Your task to perform on an android device: What's the weather going to be tomorrow? Image 0: 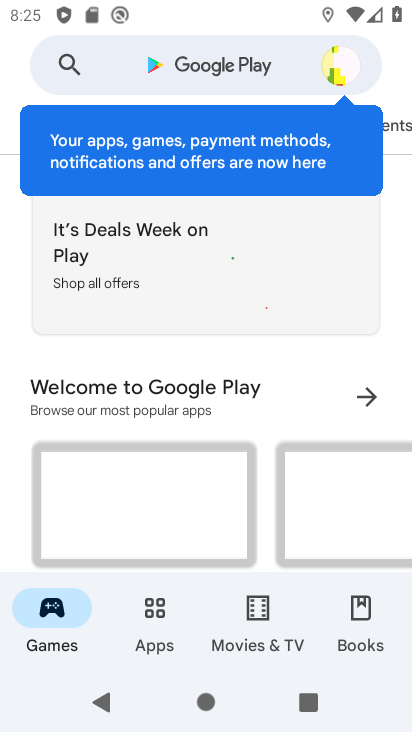
Step 0: press home button
Your task to perform on an android device: What's the weather going to be tomorrow? Image 1: 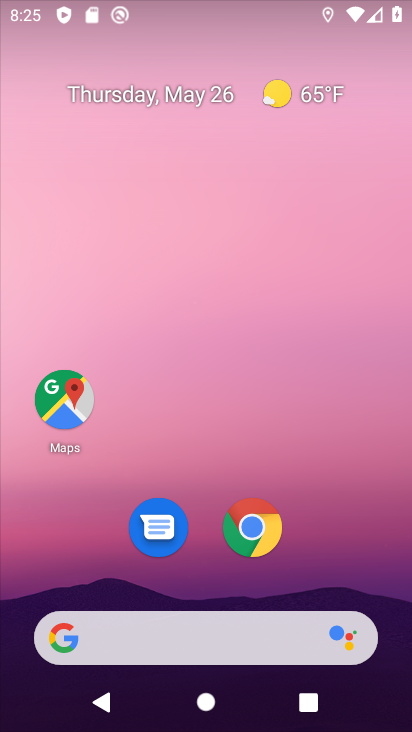
Step 1: drag from (390, 532) to (371, 146)
Your task to perform on an android device: What's the weather going to be tomorrow? Image 2: 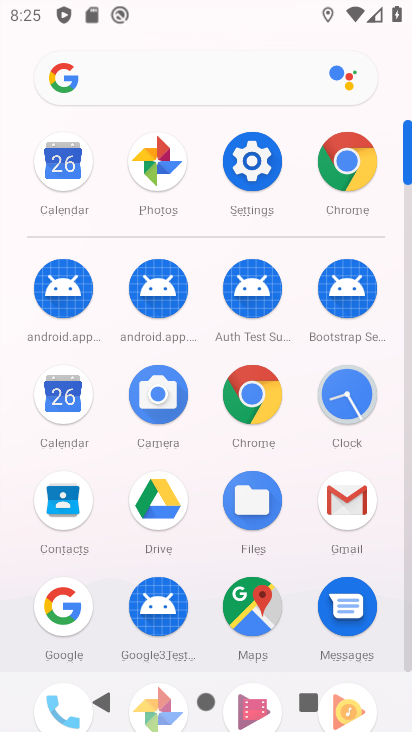
Step 2: click (71, 69)
Your task to perform on an android device: What's the weather going to be tomorrow? Image 3: 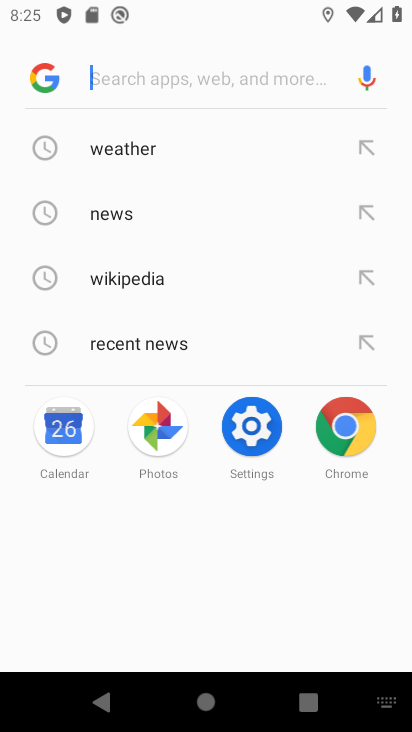
Step 3: click (42, 77)
Your task to perform on an android device: What's the weather going to be tomorrow? Image 4: 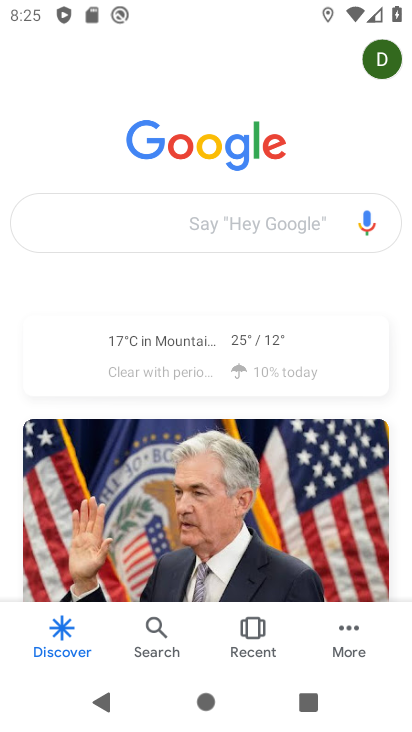
Step 4: click (238, 367)
Your task to perform on an android device: What's the weather going to be tomorrow? Image 5: 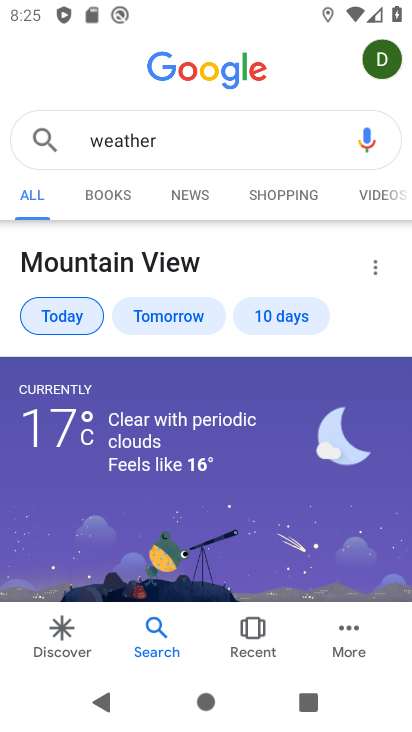
Step 5: task complete